Your task to perform on an android device: Open notification settings Image 0: 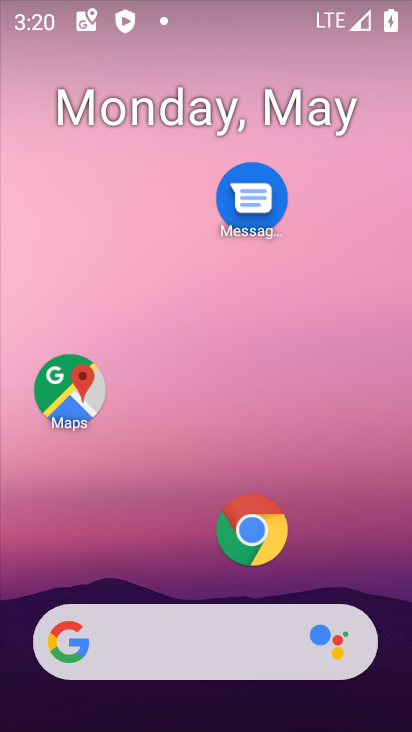
Step 0: drag from (142, 570) to (223, 90)
Your task to perform on an android device: Open notification settings Image 1: 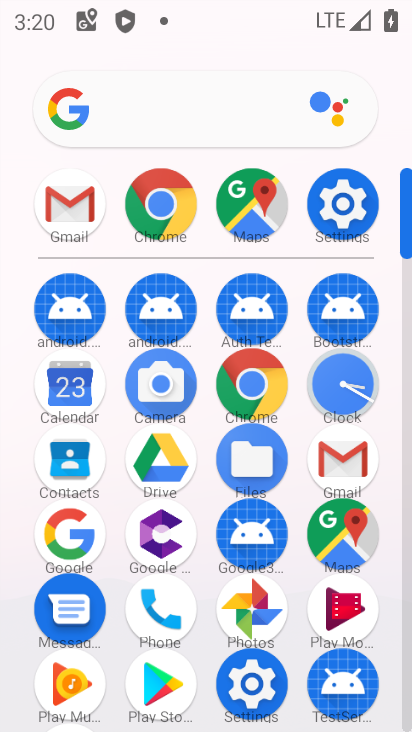
Step 1: click (349, 208)
Your task to perform on an android device: Open notification settings Image 2: 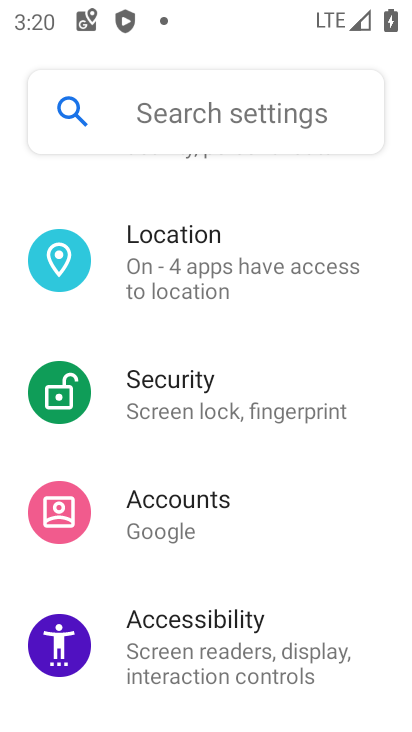
Step 2: drag from (299, 213) to (245, 608)
Your task to perform on an android device: Open notification settings Image 3: 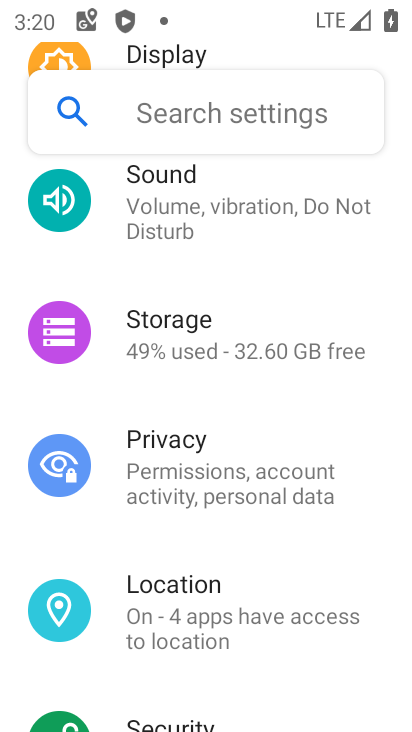
Step 3: drag from (238, 218) to (196, 719)
Your task to perform on an android device: Open notification settings Image 4: 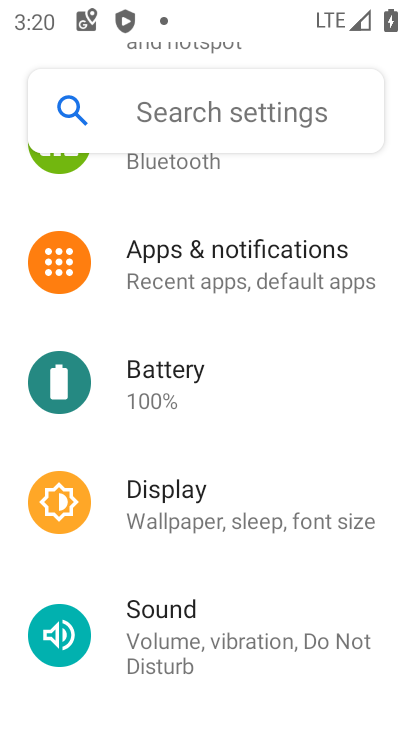
Step 4: click (228, 245)
Your task to perform on an android device: Open notification settings Image 5: 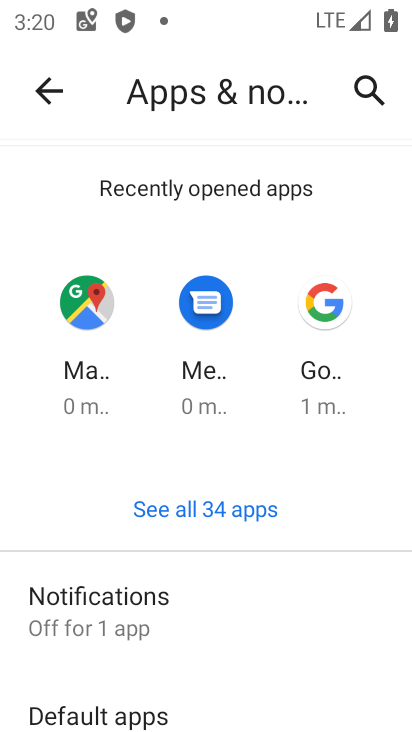
Step 5: task complete